Your task to perform on an android device: turn off notifications in google photos Image 0: 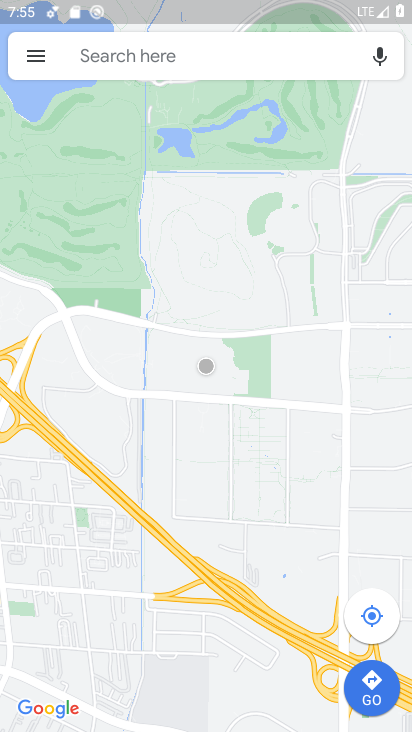
Step 0: press home button
Your task to perform on an android device: turn off notifications in google photos Image 1: 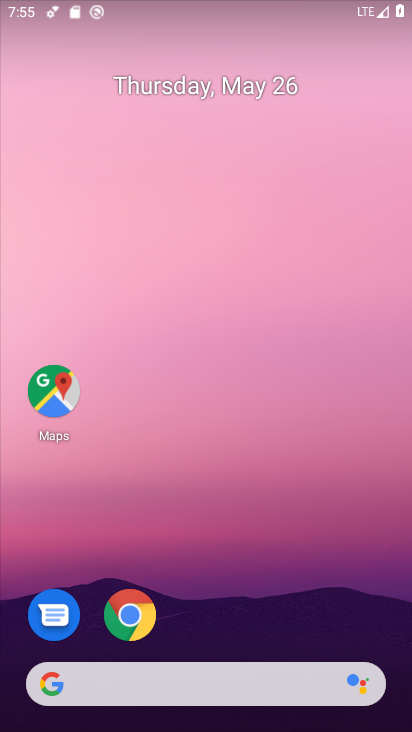
Step 1: drag from (217, 570) to (209, 257)
Your task to perform on an android device: turn off notifications in google photos Image 2: 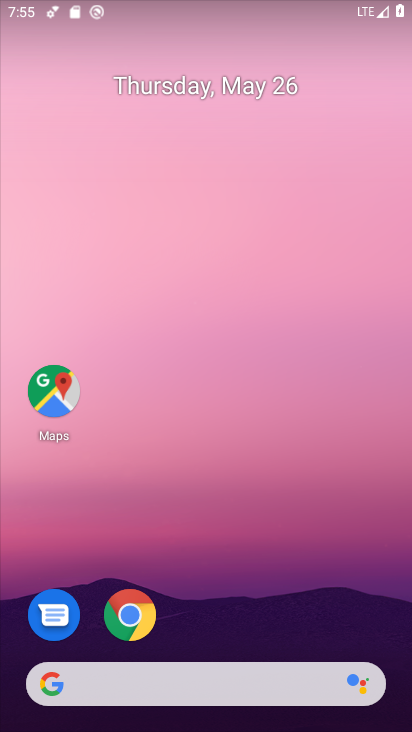
Step 2: drag from (239, 455) to (268, 213)
Your task to perform on an android device: turn off notifications in google photos Image 3: 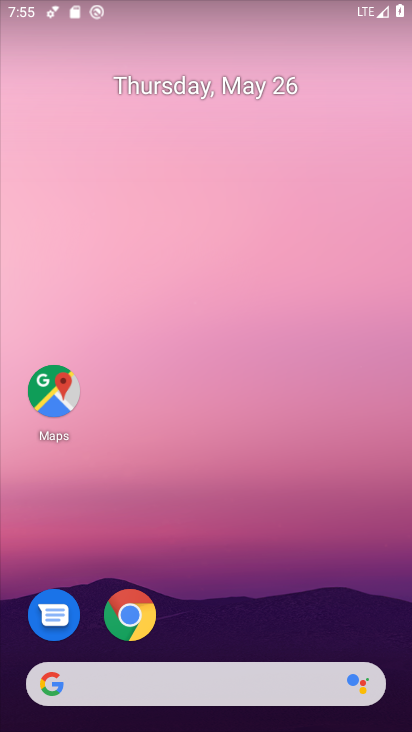
Step 3: drag from (208, 637) to (293, 164)
Your task to perform on an android device: turn off notifications in google photos Image 4: 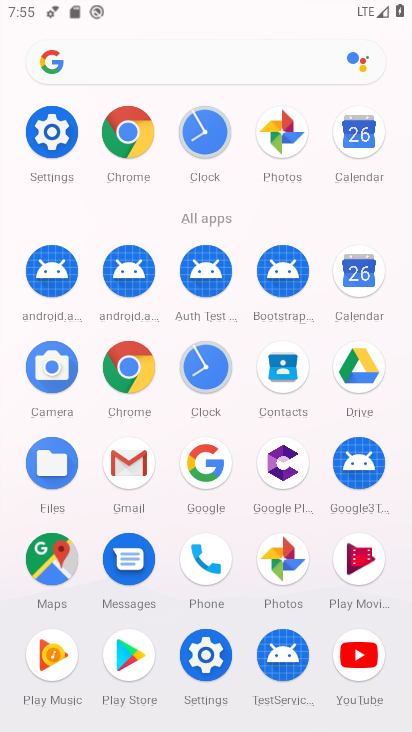
Step 4: click (276, 559)
Your task to perform on an android device: turn off notifications in google photos Image 5: 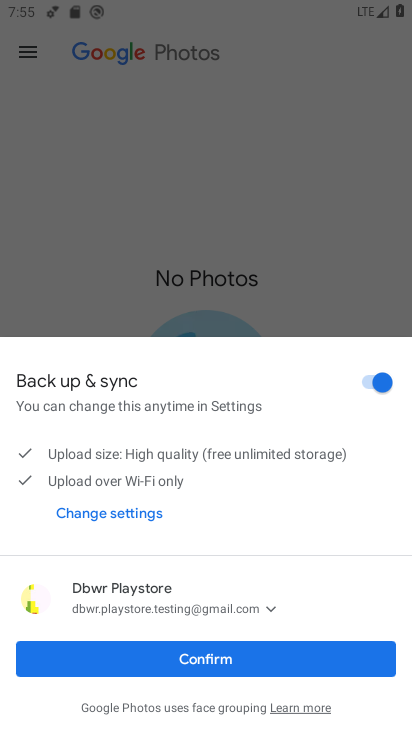
Step 5: click (147, 653)
Your task to perform on an android device: turn off notifications in google photos Image 6: 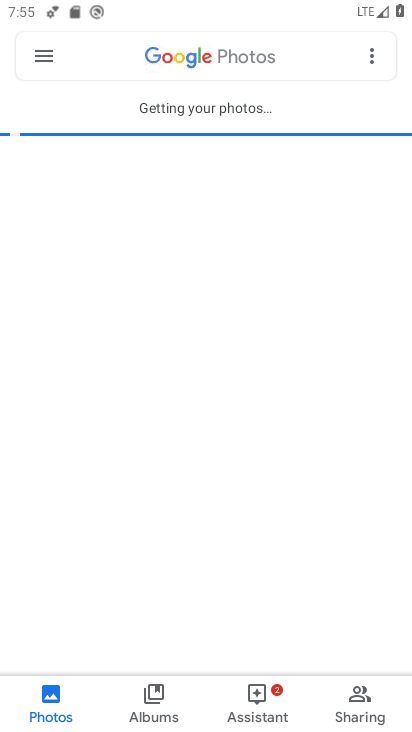
Step 6: click (38, 56)
Your task to perform on an android device: turn off notifications in google photos Image 7: 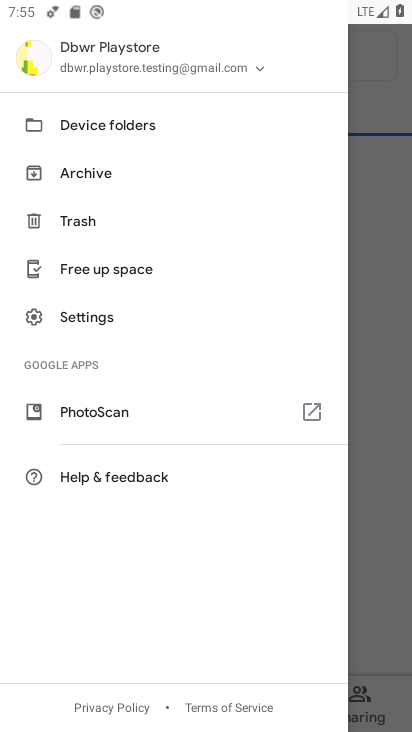
Step 7: click (107, 311)
Your task to perform on an android device: turn off notifications in google photos Image 8: 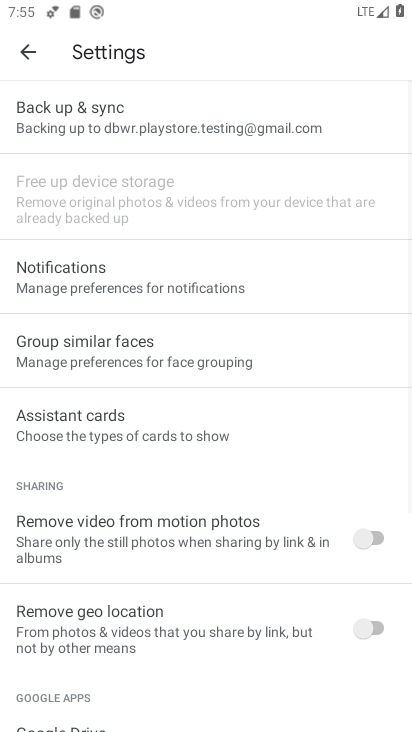
Step 8: click (101, 271)
Your task to perform on an android device: turn off notifications in google photos Image 9: 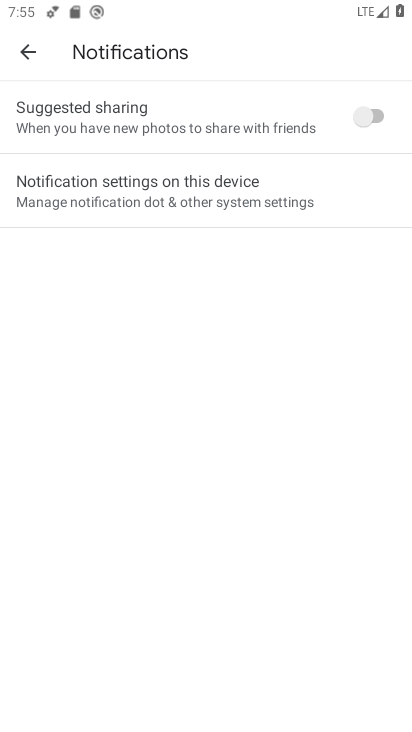
Step 9: click (250, 159)
Your task to perform on an android device: turn off notifications in google photos Image 10: 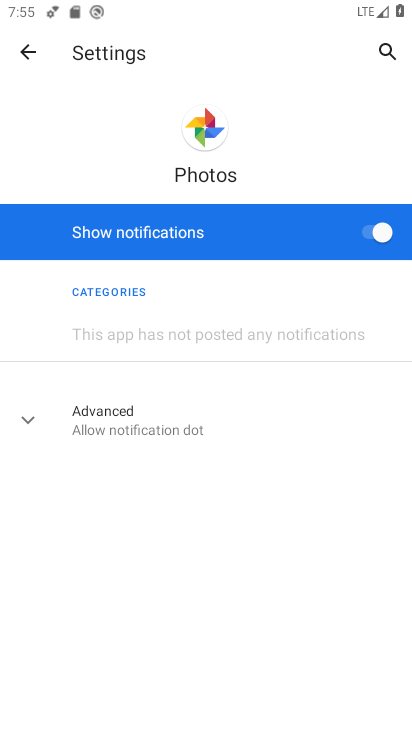
Step 10: click (372, 230)
Your task to perform on an android device: turn off notifications in google photos Image 11: 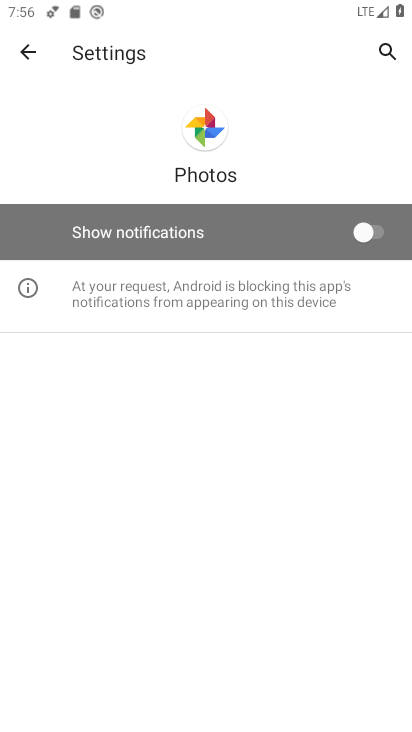
Step 11: task complete